Your task to perform on an android device: delete a single message in the gmail app Image 0: 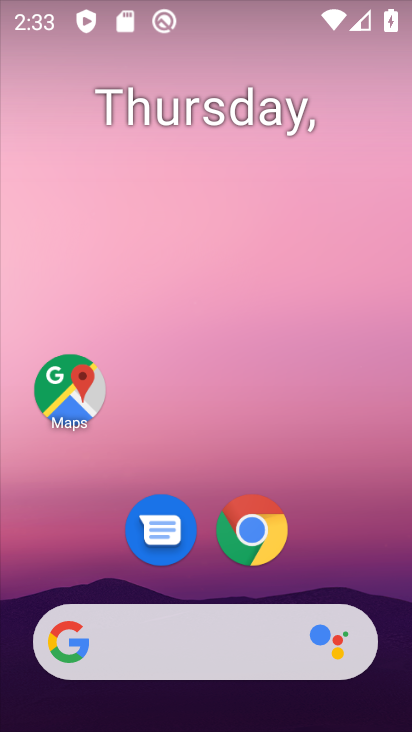
Step 0: press home button
Your task to perform on an android device: delete a single message in the gmail app Image 1: 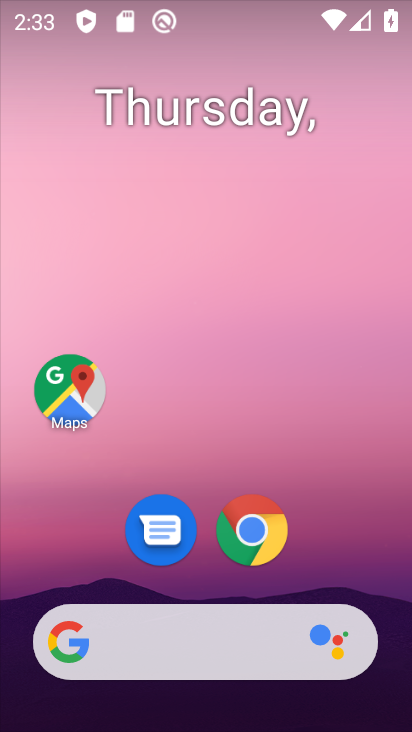
Step 1: drag from (362, 559) to (344, 53)
Your task to perform on an android device: delete a single message in the gmail app Image 2: 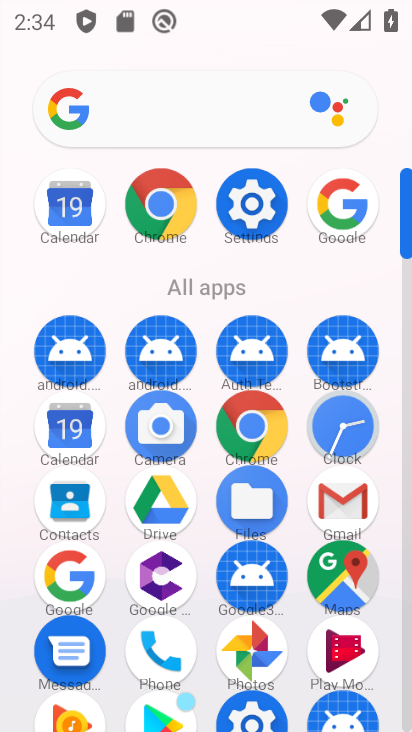
Step 2: click (407, 695)
Your task to perform on an android device: delete a single message in the gmail app Image 3: 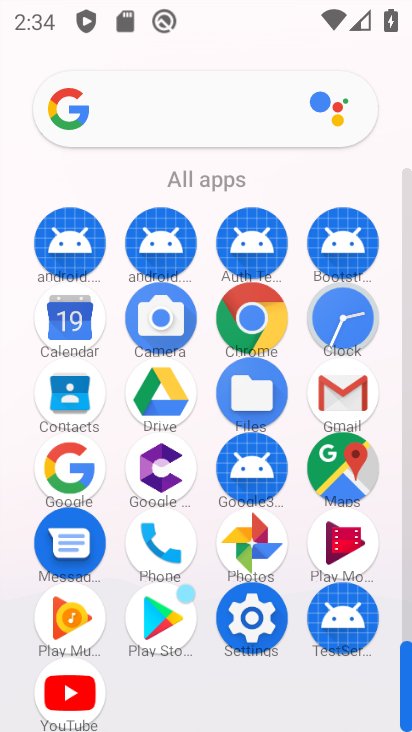
Step 3: click (338, 407)
Your task to perform on an android device: delete a single message in the gmail app Image 4: 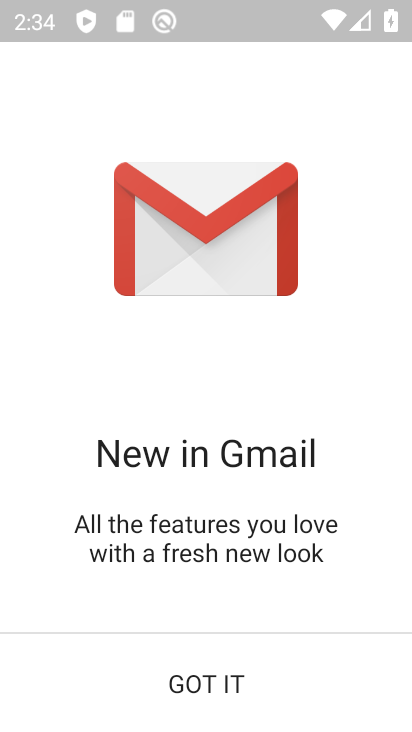
Step 4: click (178, 683)
Your task to perform on an android device: delete a single message in the gmail app Image 5: 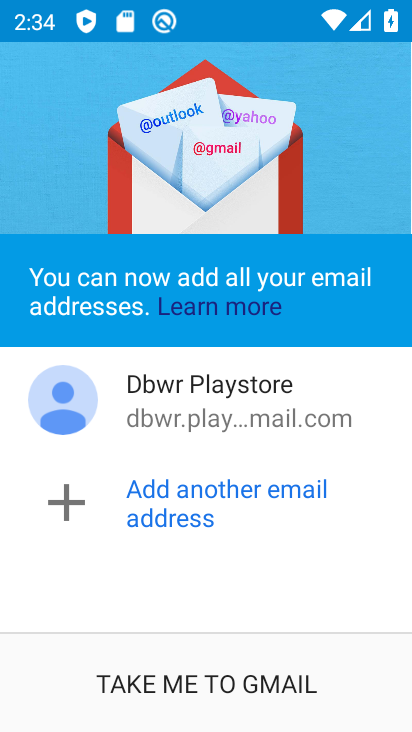
Step 5: click (178, 683)
Your task to perform on an android device: delete a single message in the gmail app Image 6: 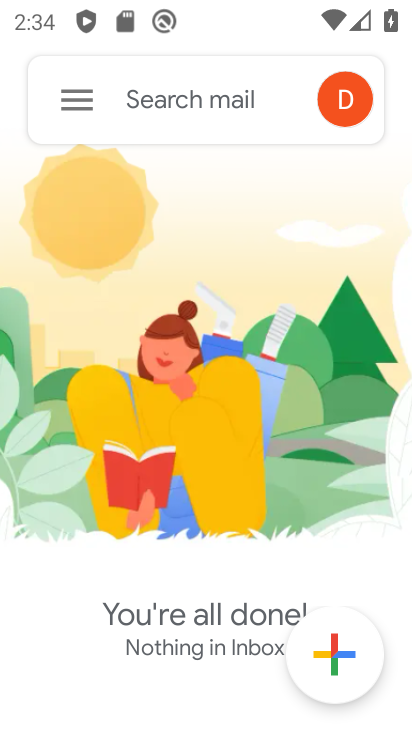
Step 6: task complete